Your task to perform on an android device: change notifications settings Image 0: 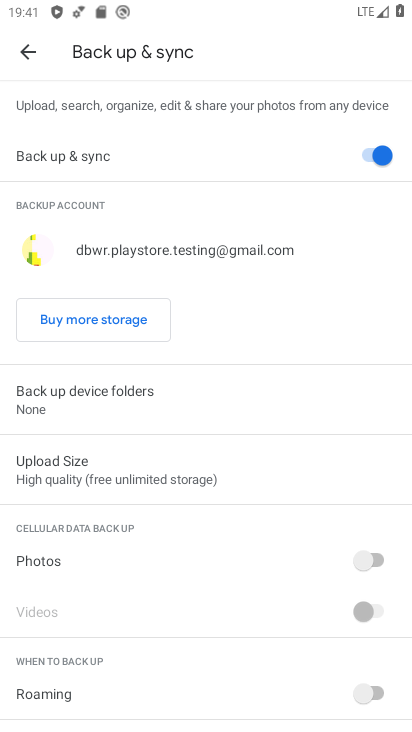
Step 0: press home button
Your task to perform on an android device: change notifications settings Image 1: 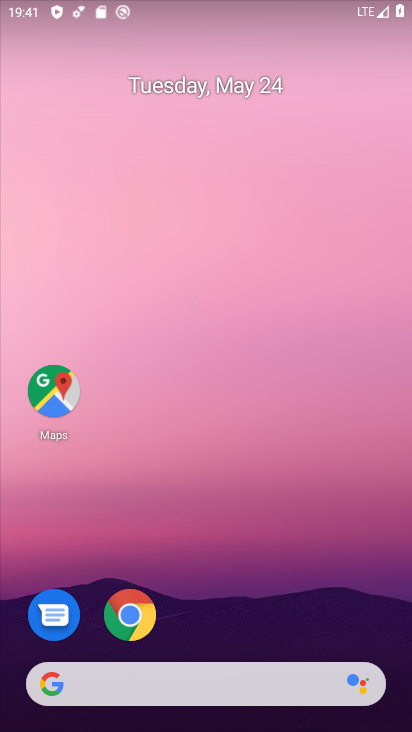
Step 1: drag from (201, 578) to (239, 257)
Your task to perform on an android device: change notifications settings Image 2: 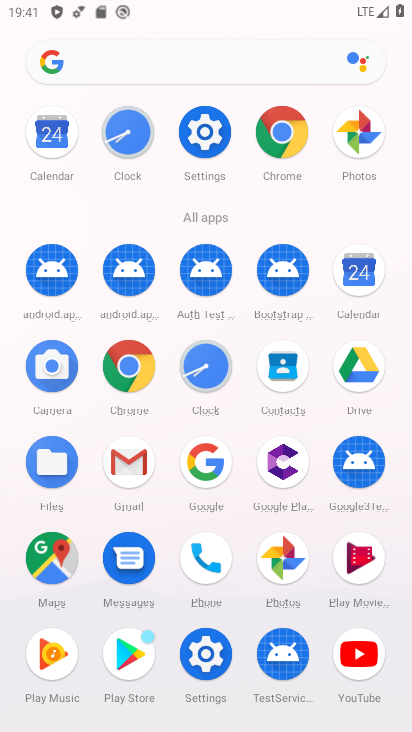
Step 2: click (203, 116)
Your task to perform on an android device: change notifications settings Image 3: 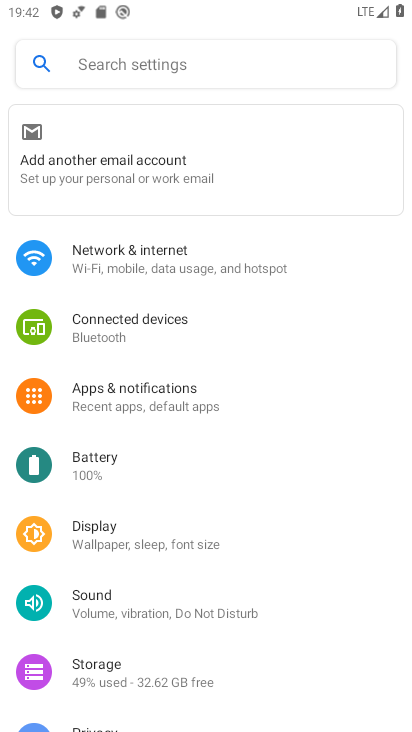
Step 3: click (198, 395)
Your task to perform on an android device: change notifications settings Image 4: 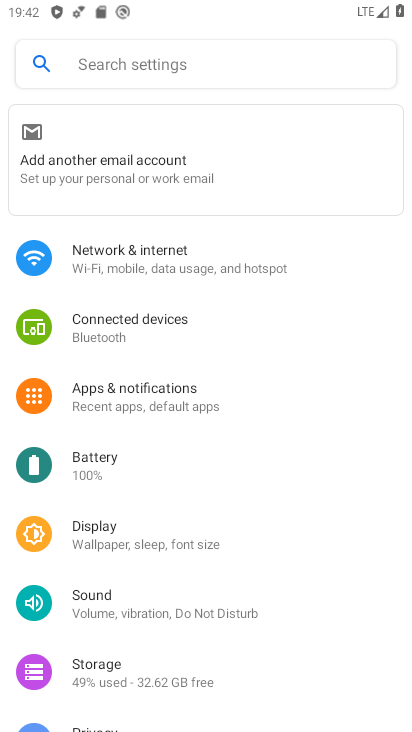
Step 4: click (162, 385)
Your task to perform on an android device: change notifications settings Image 5: 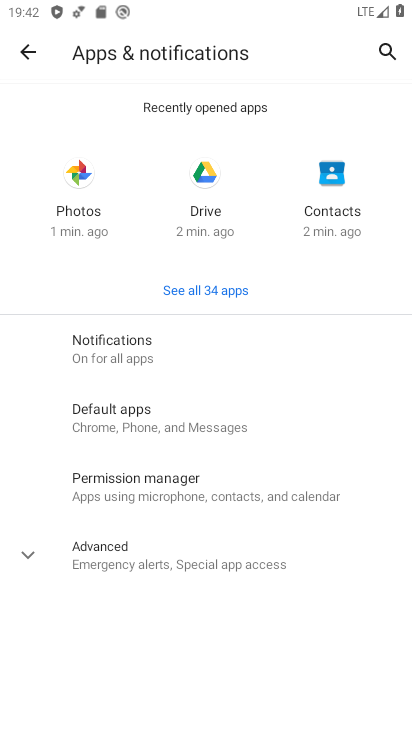
Step 5: click (150, 351)
Your task to perform on an android device: change notifications settings Image 6: 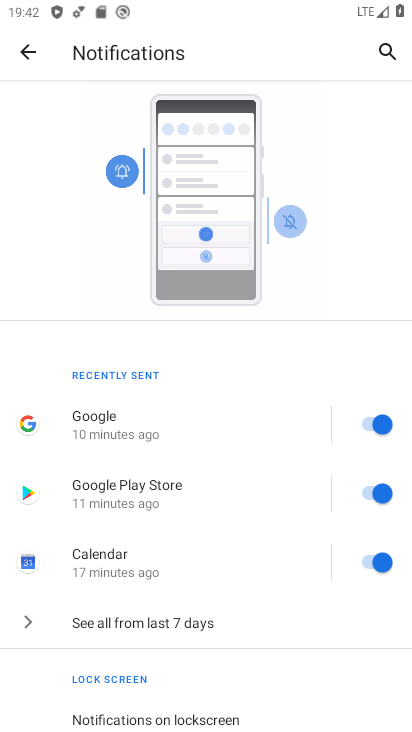
Step 6: task complete